Your task to perform on an android device: Open calendar and show me the third week of next month Image 0: 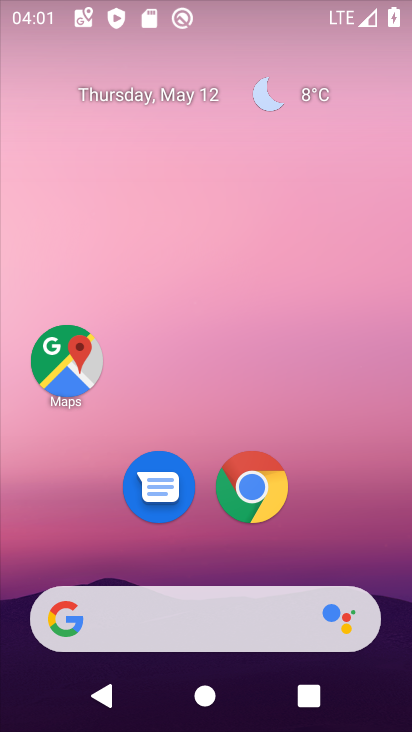
Step 0: click (387, 667)
Your task to perform on an android device: Open calendar and show me the third week of next month Image 1: 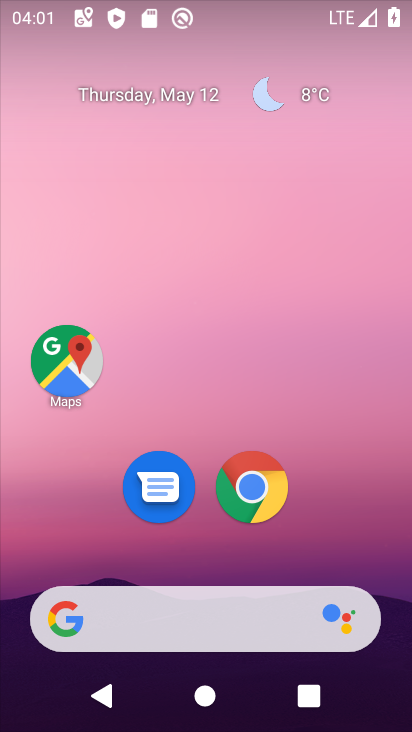
Step 1: drag from (324, 533) to (250, 139)
Your task to perform on an android device: Open calendar and show me the third week of next month Image 2: 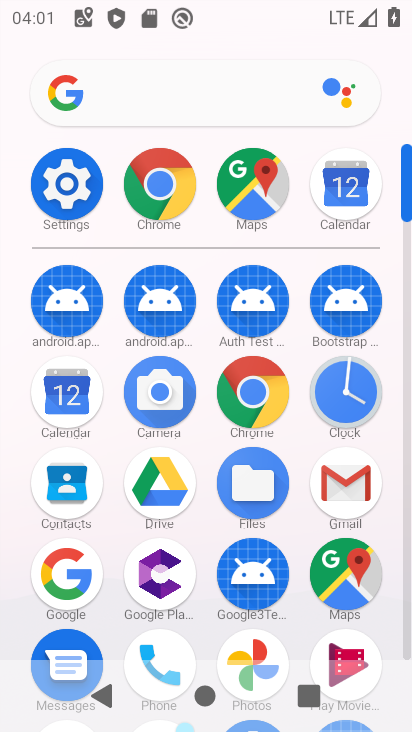
Step 2: click (51, 406)
Your task to perform on an android device: Open calendar and show me the third week of next month Image 3: 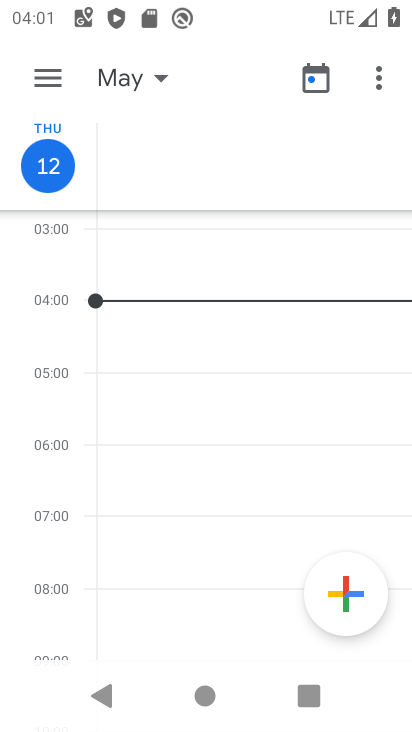
Step 3: click (154, 89)
Your task to perform on an android device: Open calendar and show me the third week of next month Image 4: 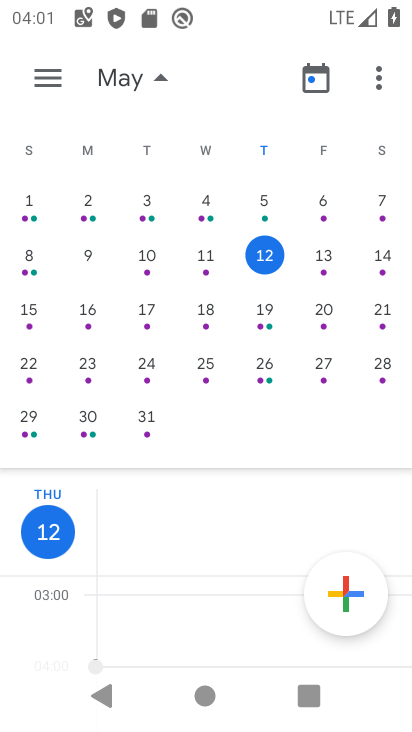
Step 4: drag from (378, 329) to (78, 304)
Your task to perform on an android device: Open calendar and show me the third week of next month Image 5: 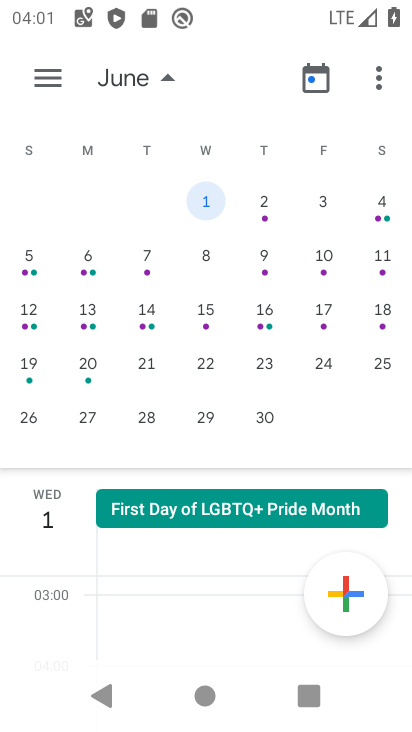
Step 5: click (31, 367)
Your task to perform on an android device: Open calendar and show me the third week of next month Image 6: 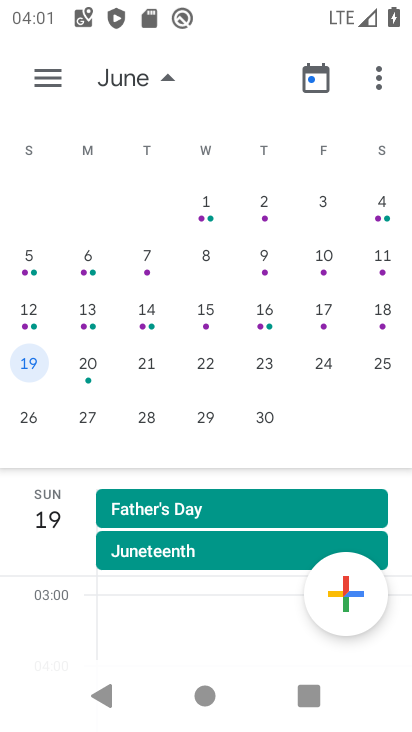
Step 6: task complete